Your task to perform on an android device: change keyboard looks Image 0: 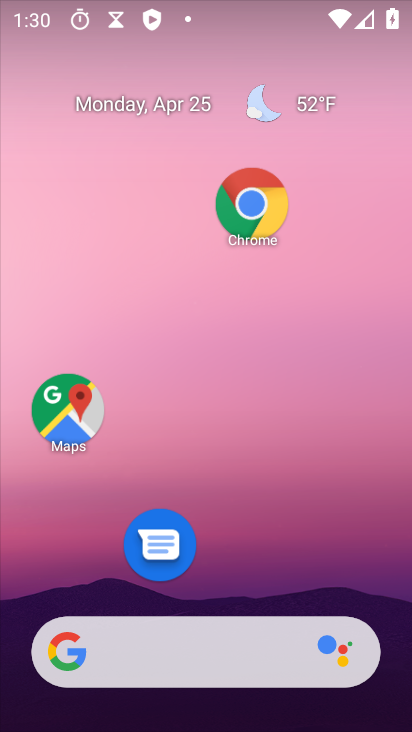
Step 0: drag from (310, 657) to (411, 188)
Your task to perform on an android device: change keyboard looks Image 1: 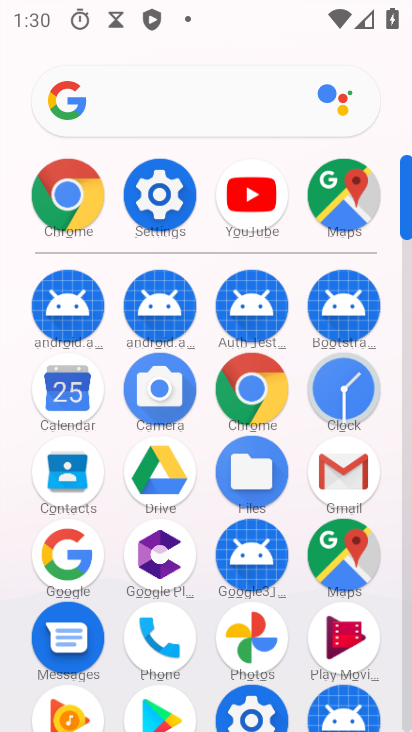
Step 1: click (165, 185)
Your task to perform on an android device: change keyboard looks Image 2: 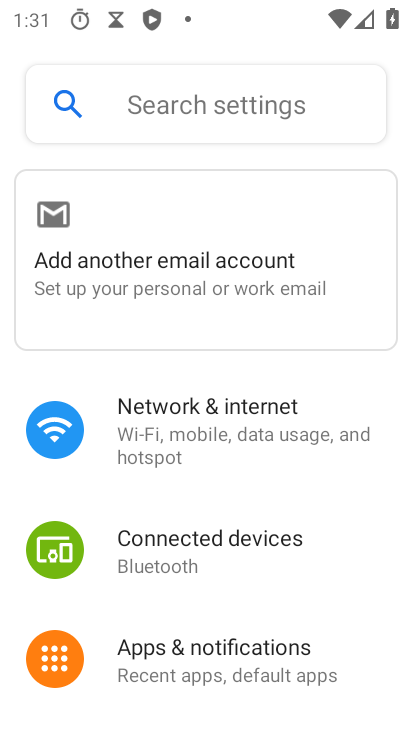
Step 2: click (149, 120)
Your task to perform on an android device: change keyboard looks Image 3: 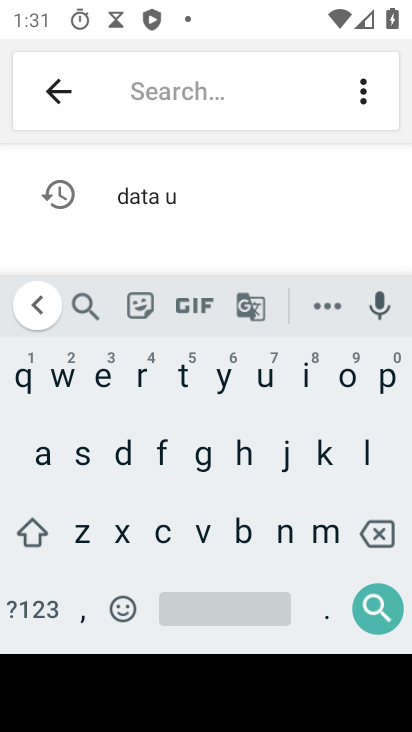
Step 3: click (316, 450)
Your task to perform on an android device: change keyboard looks Image 4: 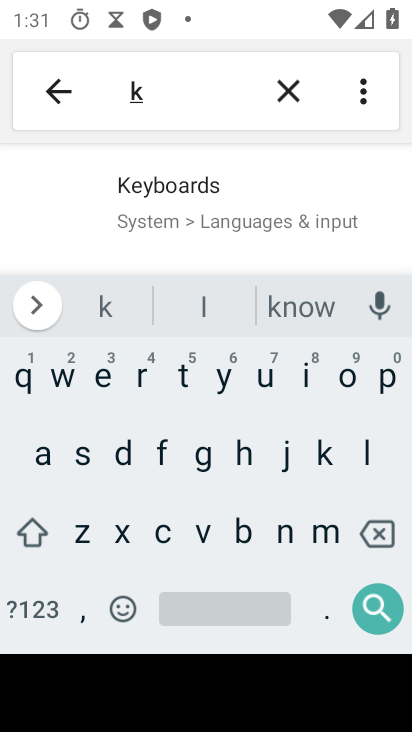
Step 4: click (255, 205)
Your task to perform on an android device: change keyboard looks Image 5: 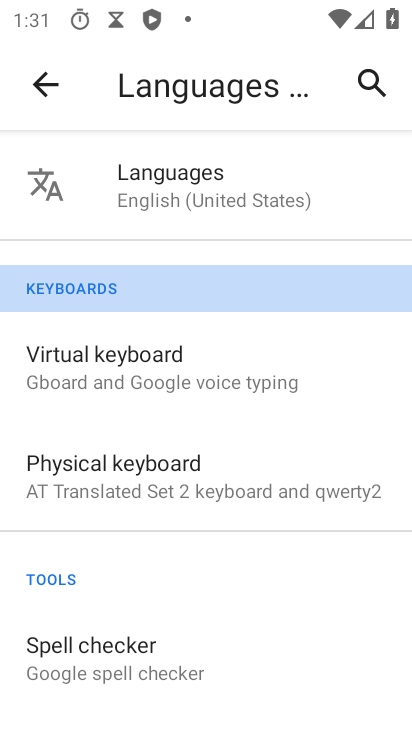
Step 5: click (161, 401)
Your task to perform on an android device: change keyboard looks Image 6: 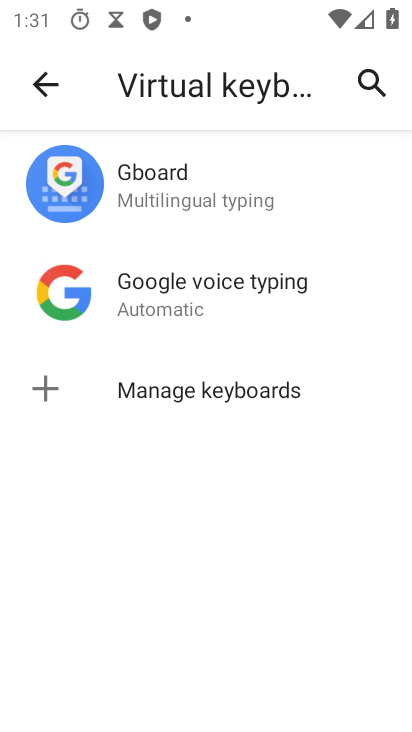
Step 6: click (233, 203)
Your task to perform on an android device: change keyboard looks Image 7: 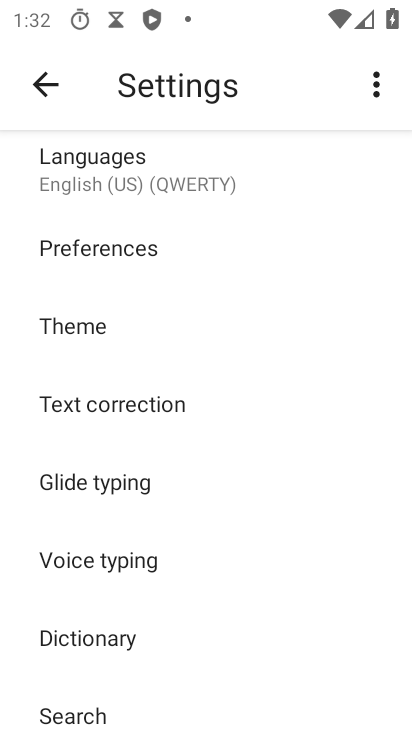
Step 7: click (79, 318)
Your task to perform on an android device: change keyboard looks Image 8: 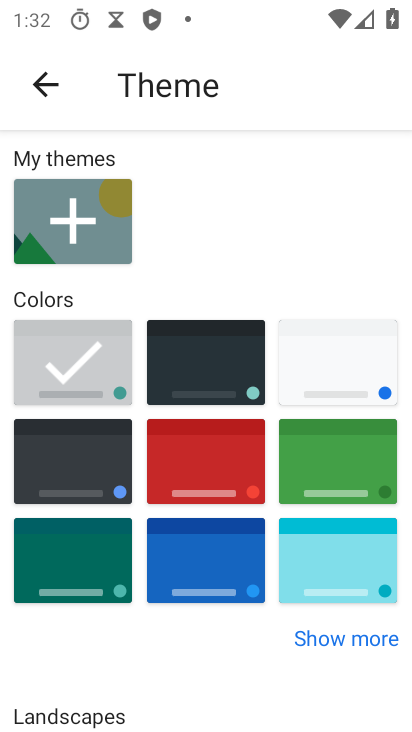
Step 8: click (61, 562)
Your task to perform on an android device: change keyboard looks Image 9: 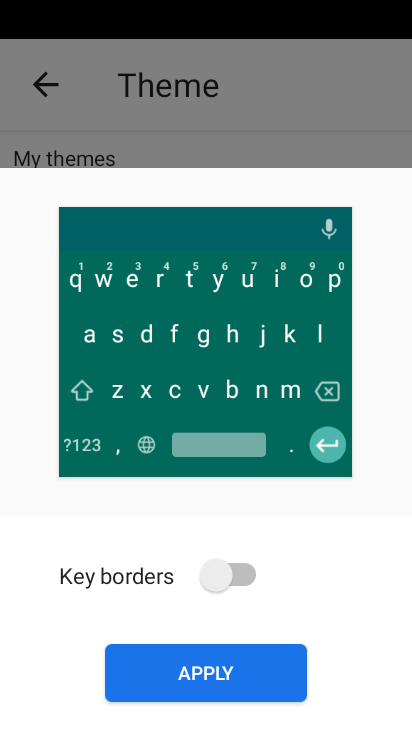
Step 9: click (228, 557)
Your task to perform on an android device: change keyboard looks Image 10: 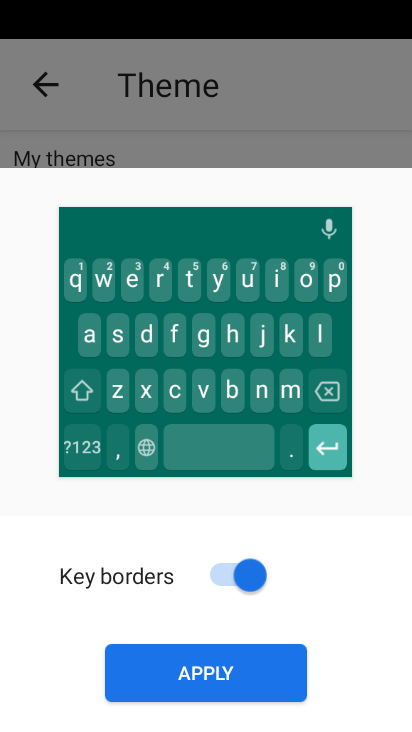
Step 10: click (169, 689)
Your task to perform on an android device: change keyboard looks Image 11: 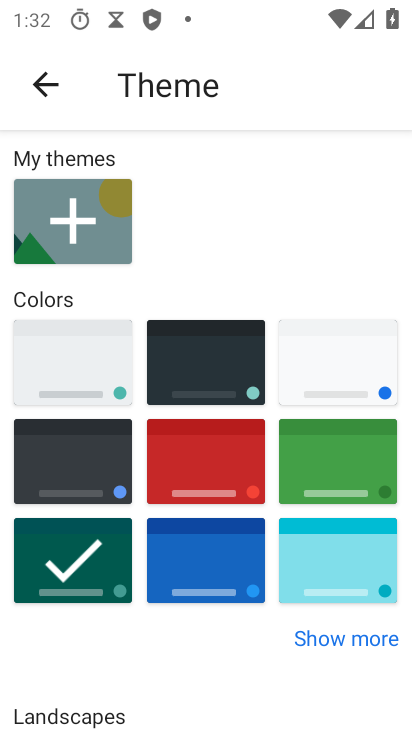
Step 11: task complete